Your task to perform on an android device: check battery use Image 0: 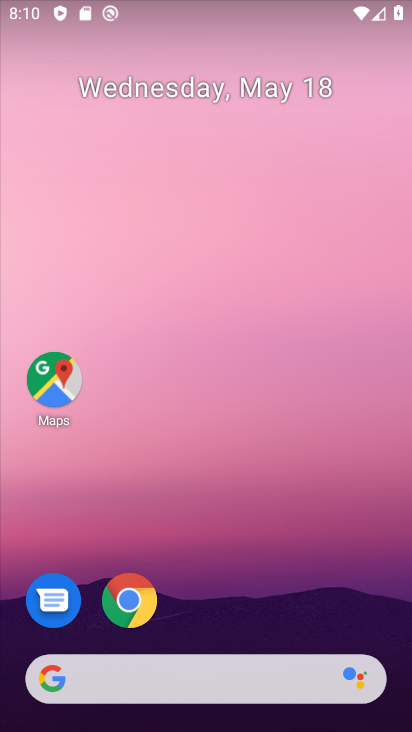
Step 0: drag from (53, 568) to (308, 242)
Your task to perform on an android device: check battery use Image 1: 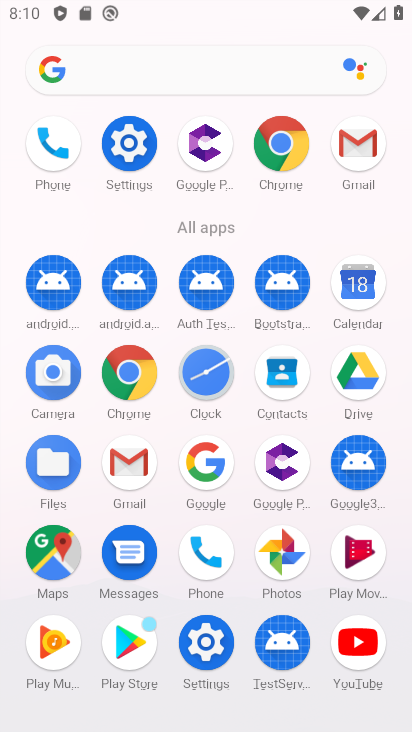
Step 1: click (125, 142)
Your task to perform on an android device: check battery use Image 2: 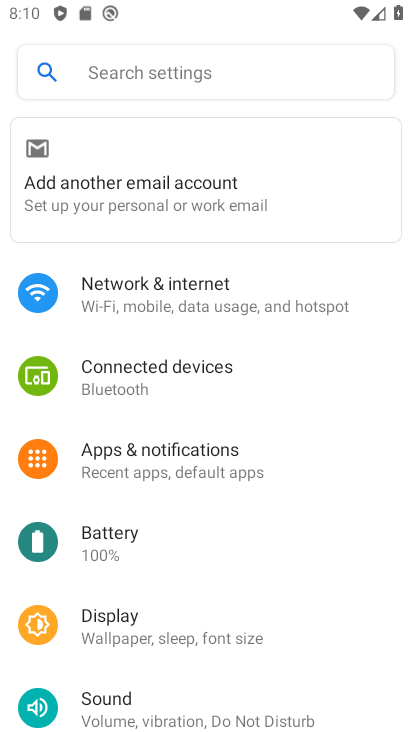
Step 2: click (217, 540)
Your task to perform on an android device: check battery use Image 3: 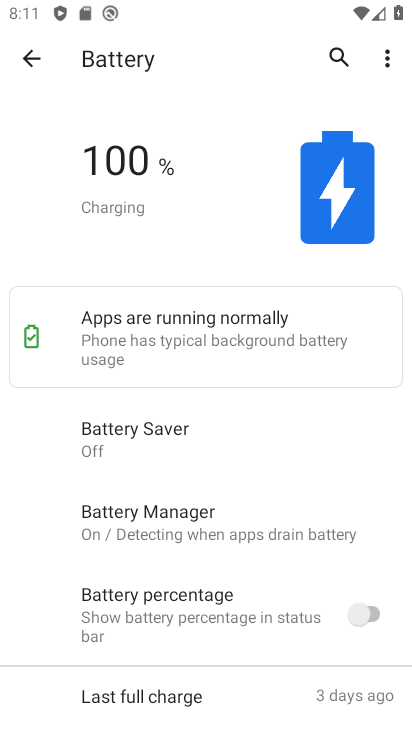
Step 3: task complete